Your task to perform on an android device: change keyboard looks Image 0: 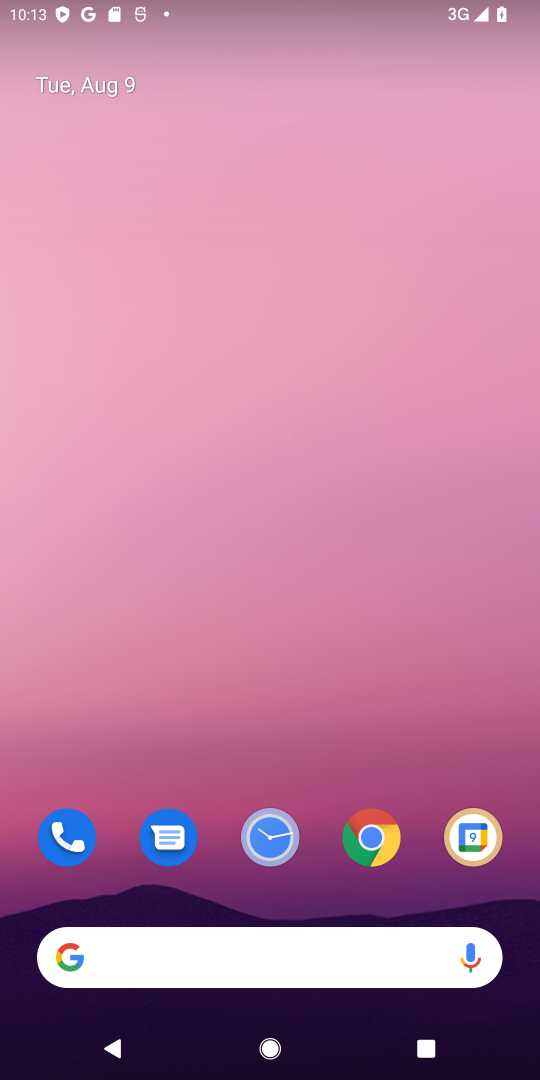
Step 0: drag from (314, 847) to (321, 157)
Your task to perform on an android device: change keyboard looks Image 1: 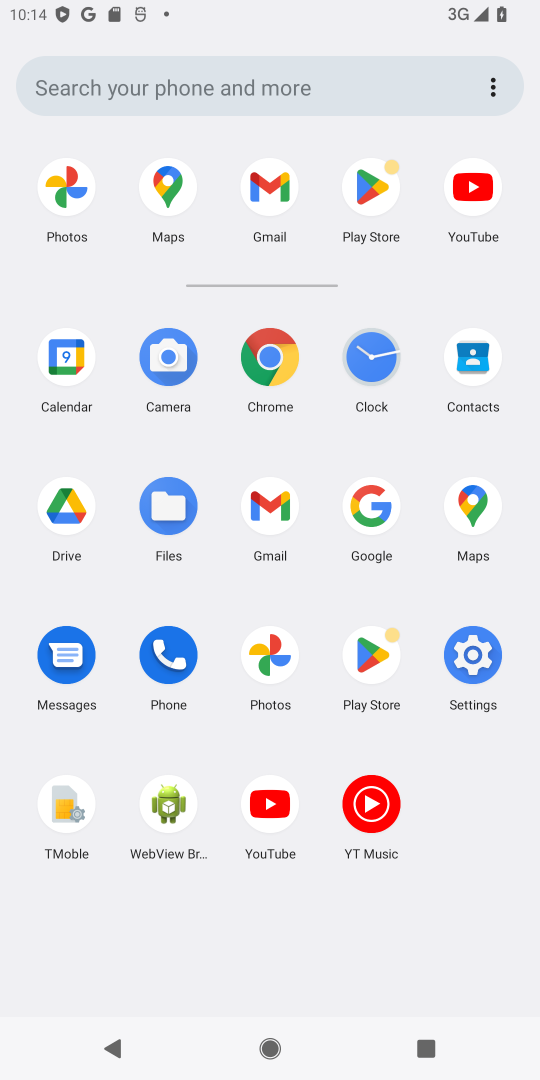
Step 1: click (477, 664)
Your task to perform on an android device: change keyboard looks Image 2: 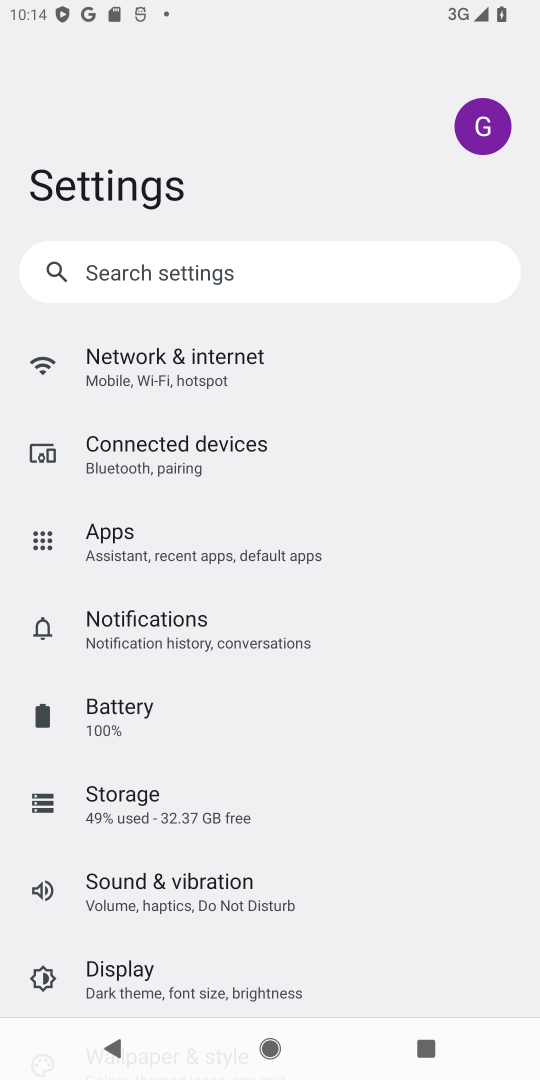
Step 2: drag from (172, 910) to (178, 452)
Your task to perform on an android device: change keyboard looks Image 3: 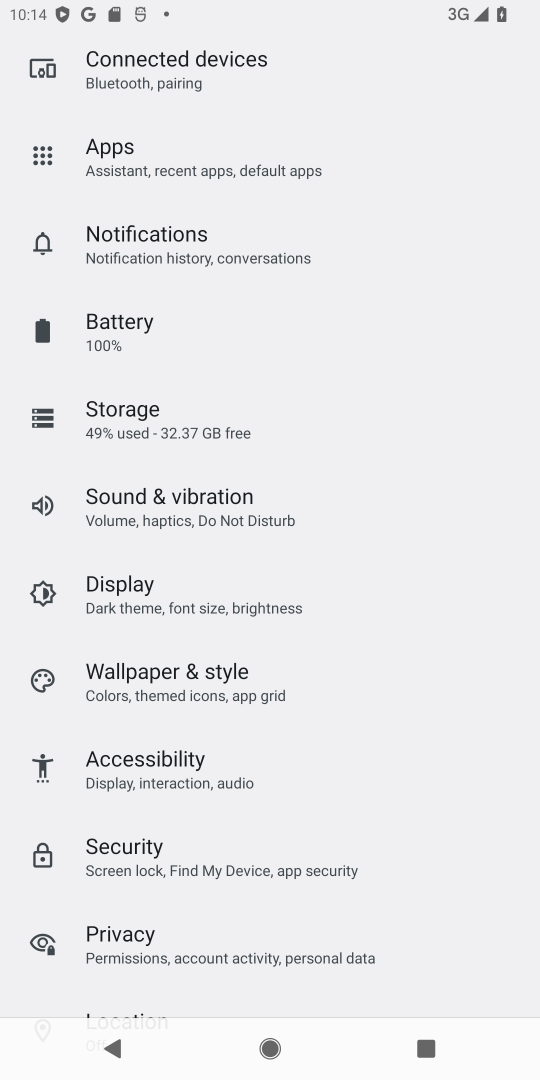
Step 3: drag from (183, 894) to (162, 422)
Your task to perform on an android device: change keyboard looks Image 4: 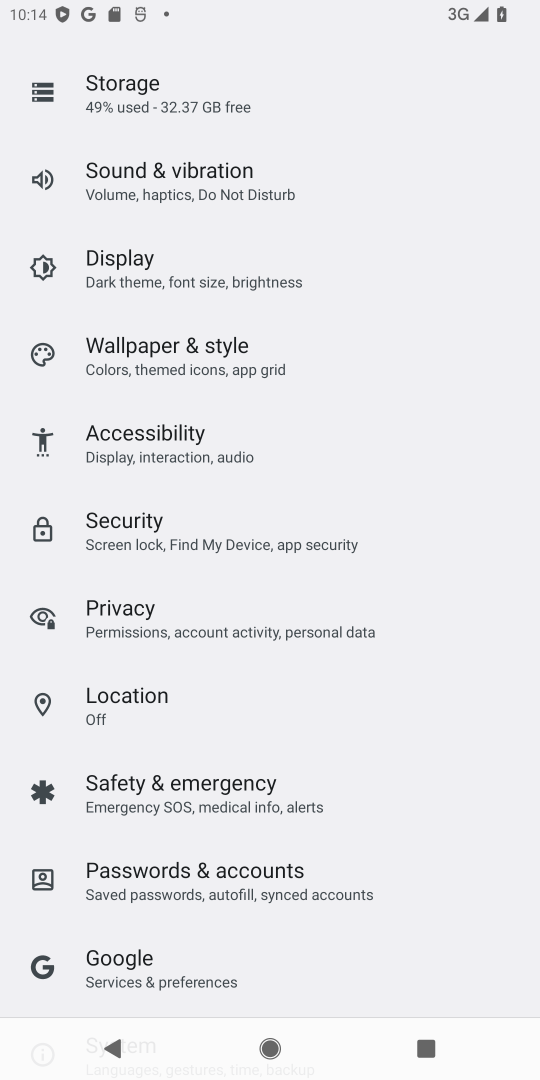
Step 4: drag from (171, 865) to (120, 420)
Your task to perform on an android device: change keyboard looks Image 5: 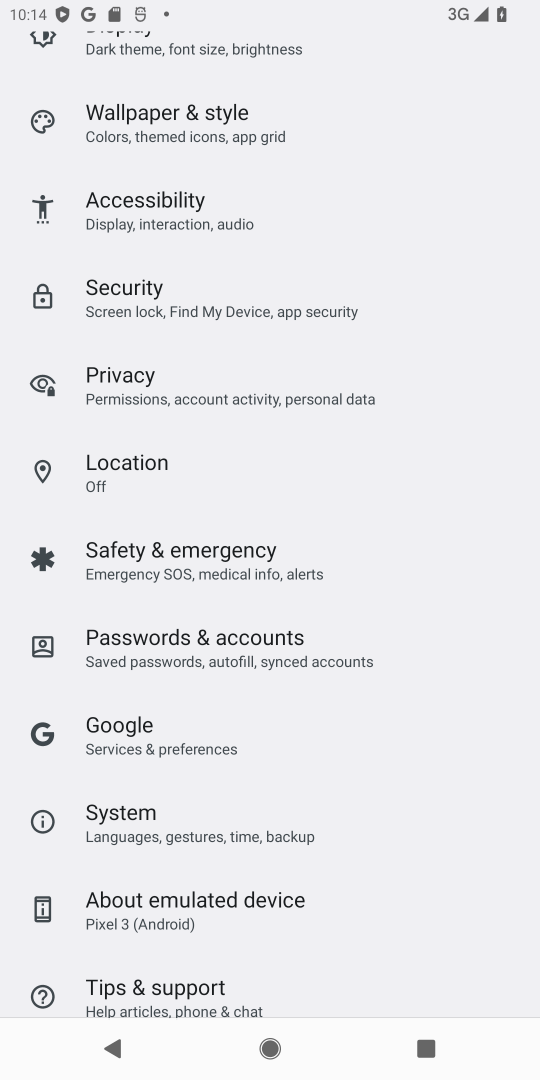
Step 5: click (132, 821)
Your task to perform on an android device: change keyboard looks Image 6: 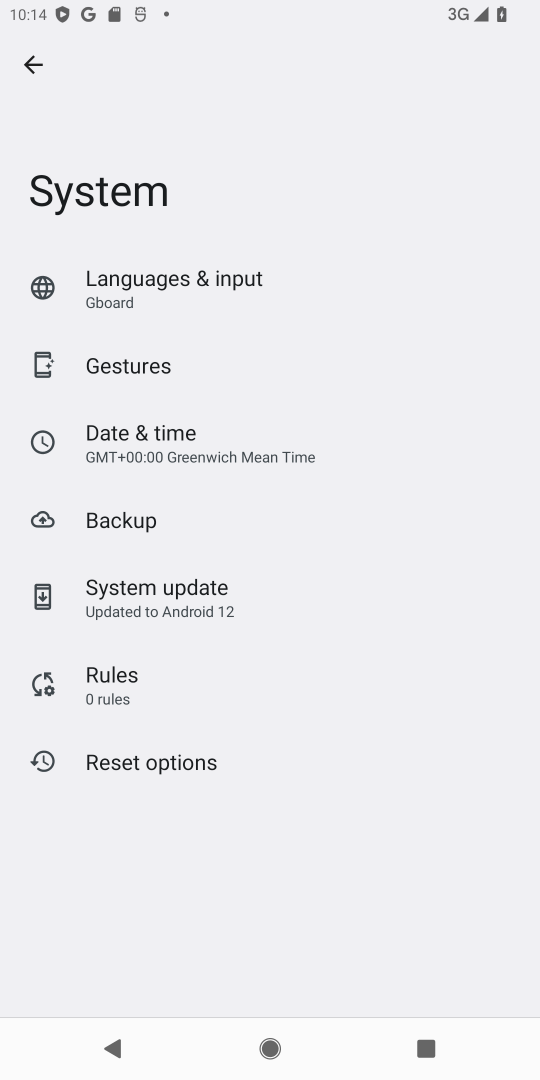
Step 6: click (116, 283)
Your task to perform on an android device: change keyboard looks Image 7: 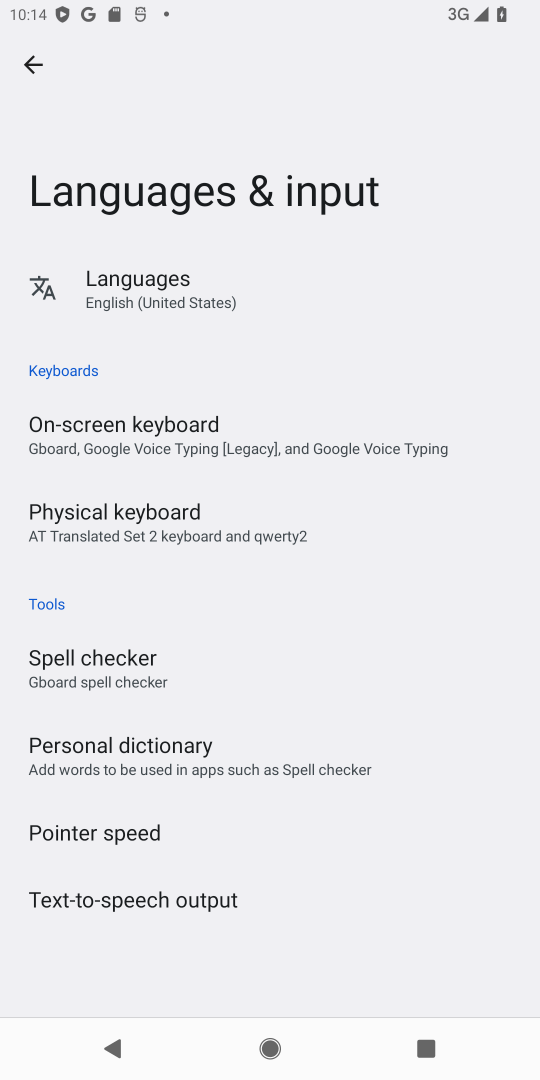
Step 7: click (106, 446)
Your task to perform on an android device: change keyboard looks Image 8: 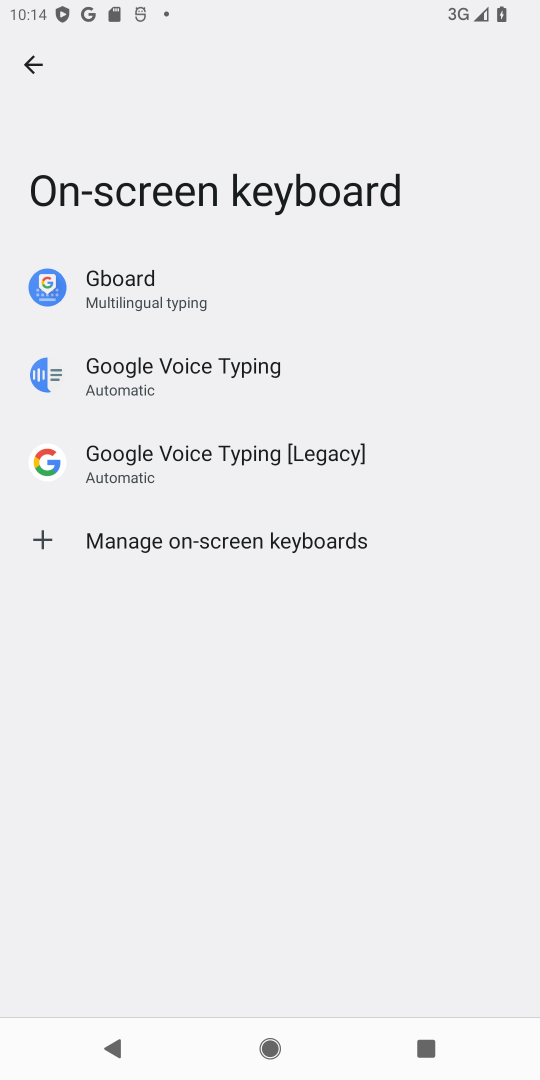
Step 8: click (112, 290)
Your task to perform on an android device: change keyboard looks Image 9: 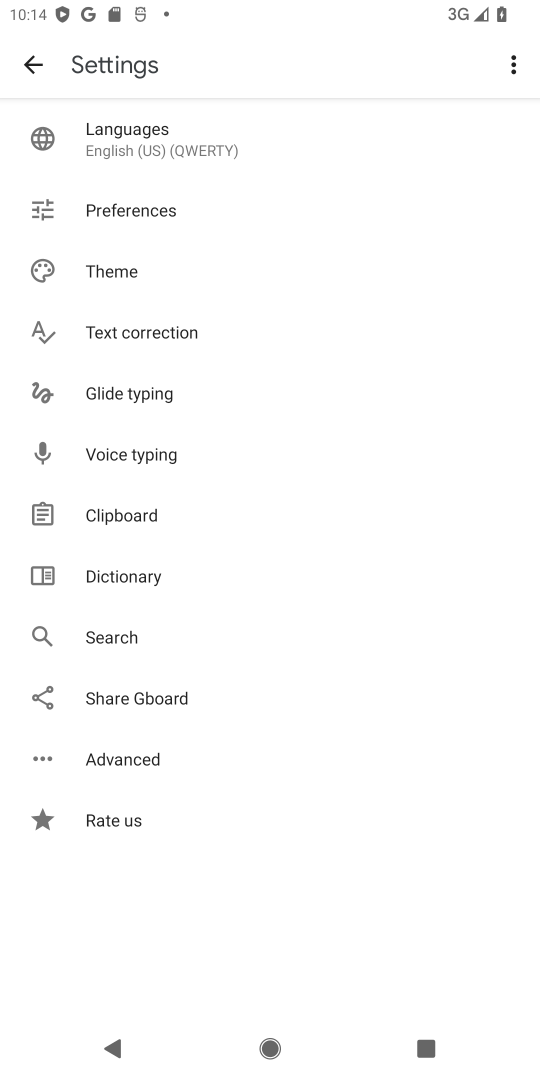
Step 9: click (108, 271)
Your task to perform on an android device: change keyboard looks Image 10: 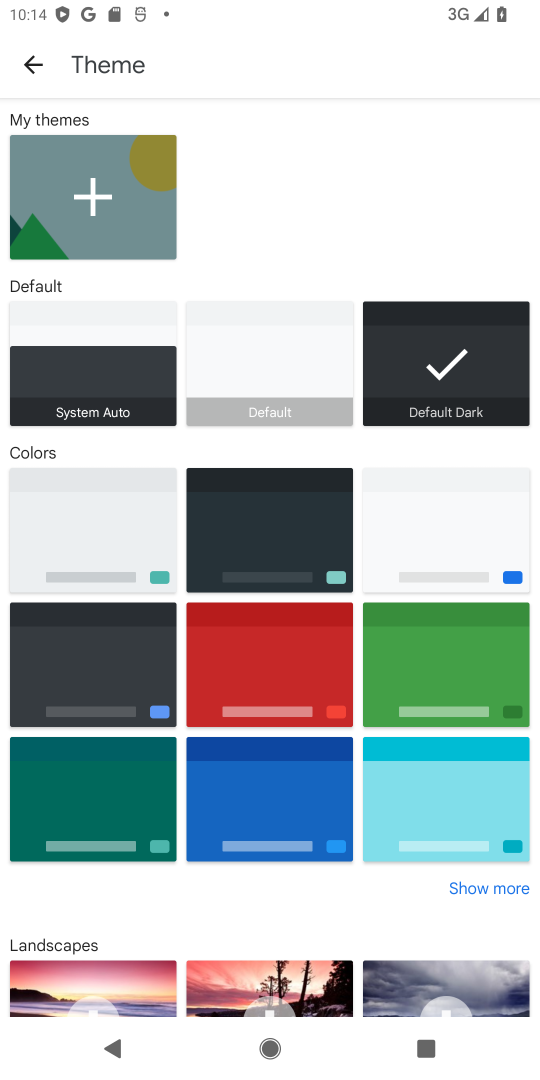
Step 10: click (450, 551)
Your task to perform on an android device: change keyboard looks Image 11: 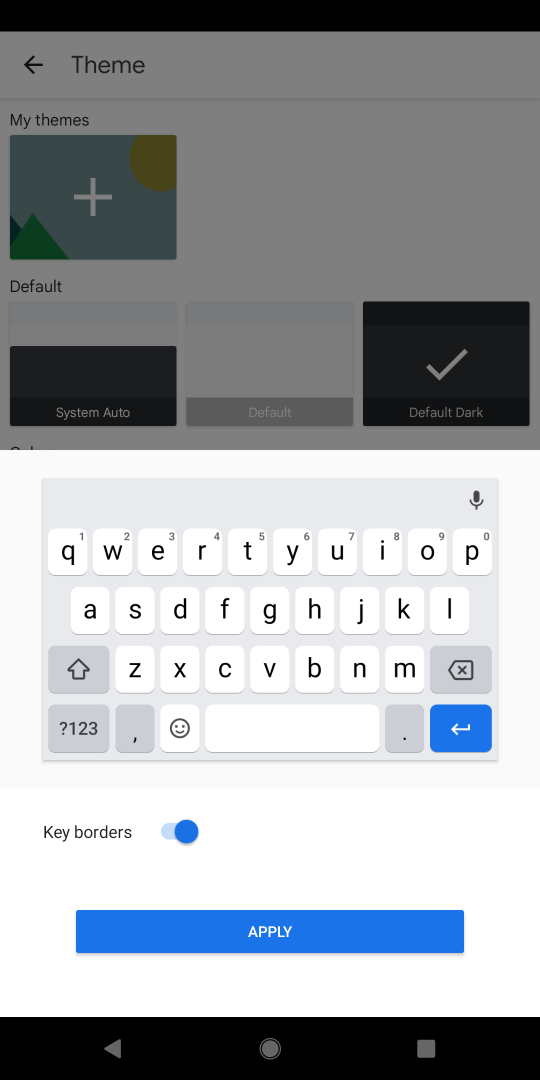
Step 11: click (278, 926)
Your task to perform on an android device: change keyboard looks Image 12: 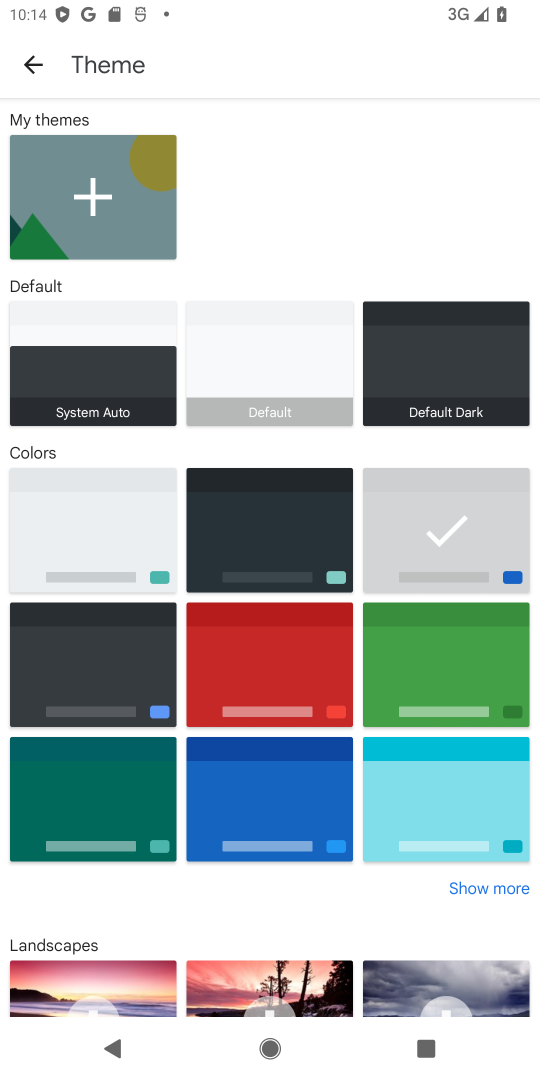
Step 12: task complete